Your task to perform on an android device: create a new album in the google photos Image 0: 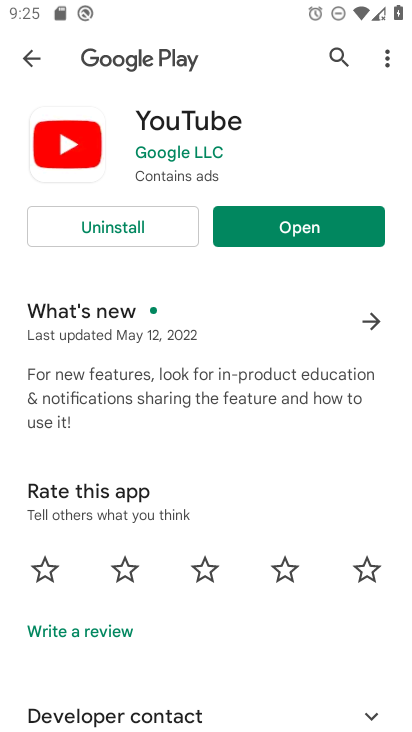
Step 0: press home button
Your task to perform on an android device: create a new album in the google photos Image 1: 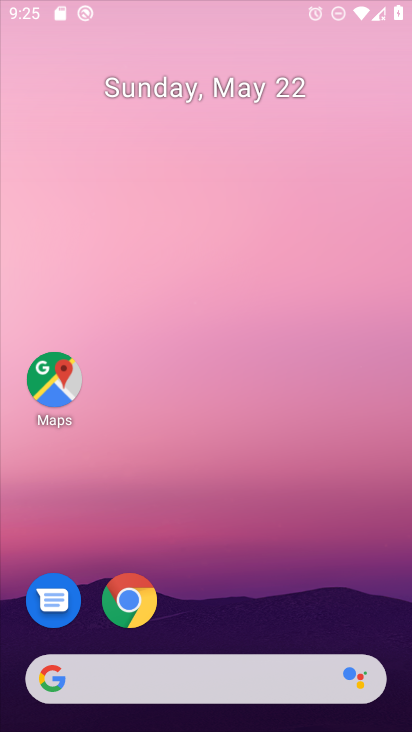
Step 1: drag from (277, 607) to (359, 199)
Your task to perform on an android device: create a new album in the google photos Image 2: 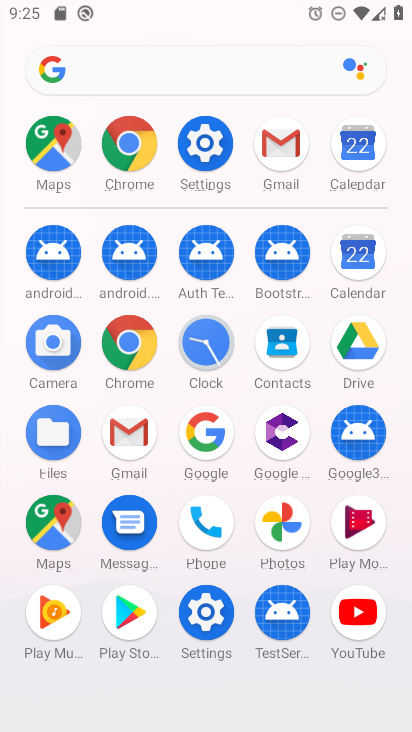
Step 2: click (293, 526)
Your task to perform on an android device: create a new album in the google photos Image 3: 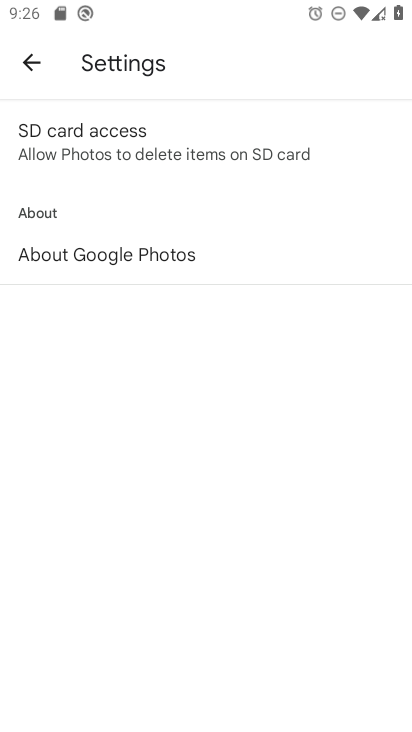
Step 3: click (36, 66)
Your task to perform on an android device: create a new album in the google photos Image 4: 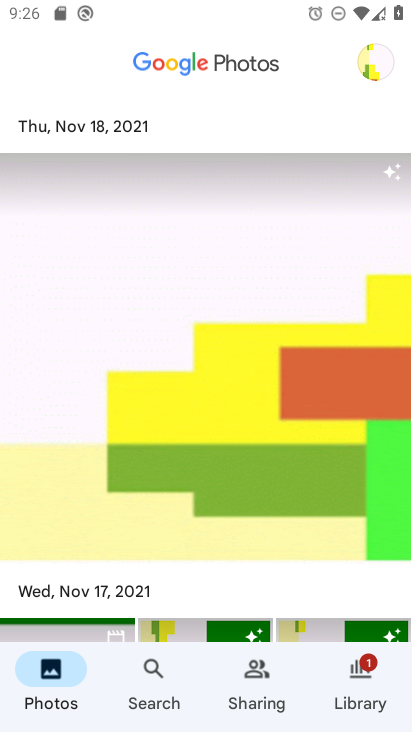
Step 4: click (360, 689)
Your task to perform on an android device: create a new album in the google photos Image 5: 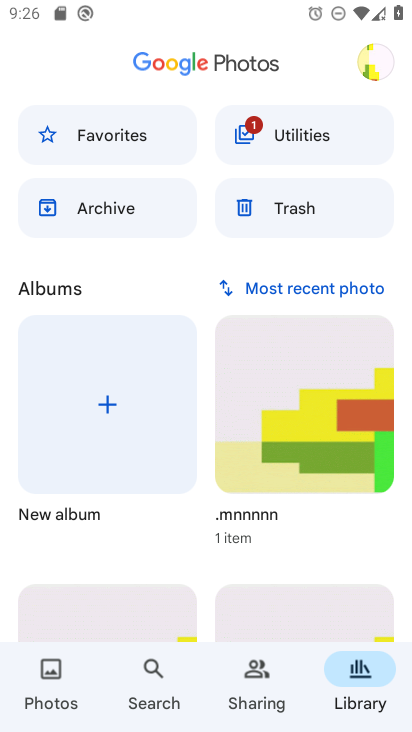
Step 5: click (355, 689)
Your task to perform on an android device: create a new album in the google photos Image 6: 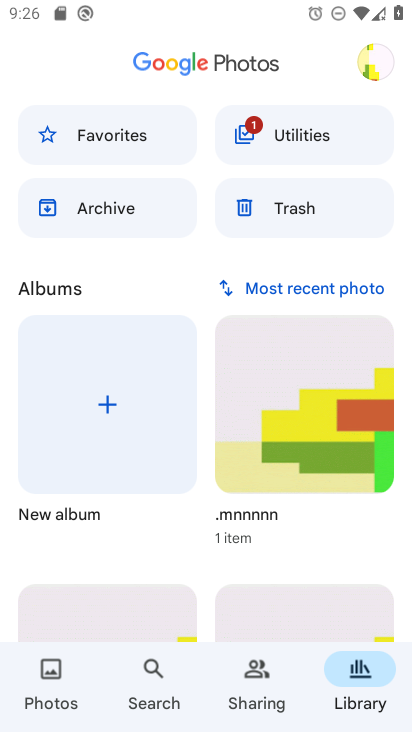
Step 6: click (108, 437)
Your task to perform on an android device: create a new album in the google photos Image 7: 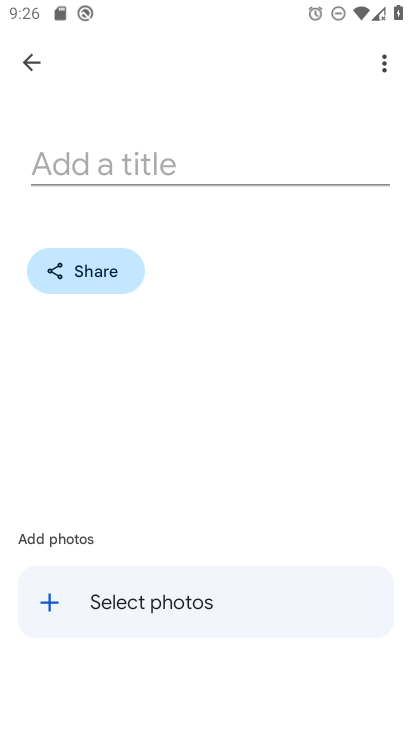
Step 7: click (166, 174)
Your task to perform on an android device: create a new album in the google photos Image 8: 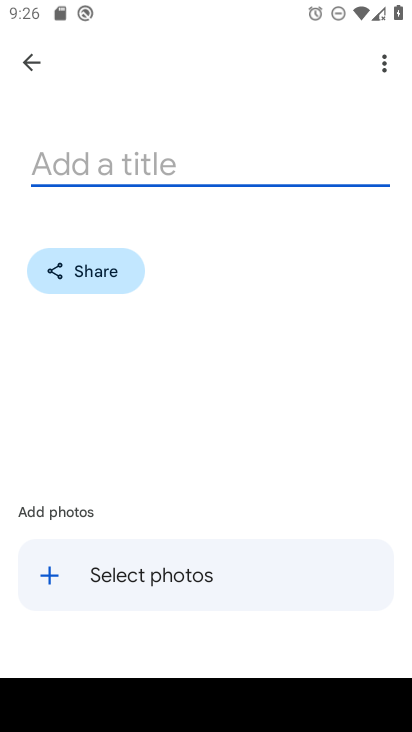
Step 8: type "gfjfh"
Your task to perform on an android device: create a new album in the google photos Image 9: 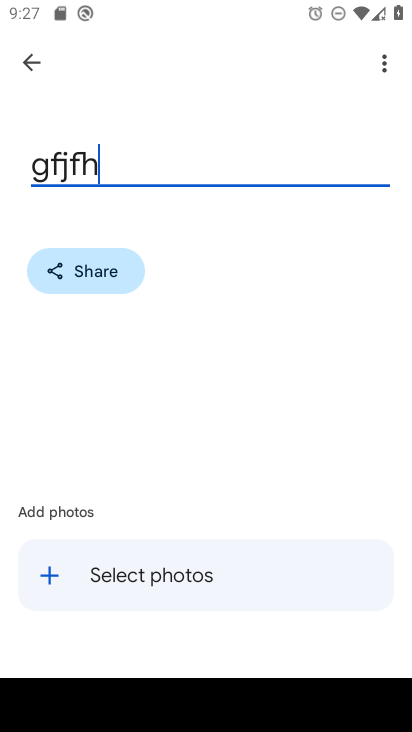
Step 9: click (56, 575)
Your task to perform on an android device: create a new album in the google photos Image 10: 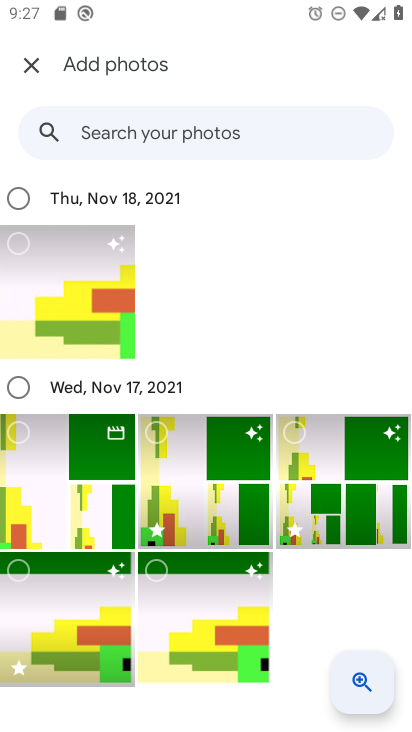
Step 10: click (104, 299)
Your task to perform on an android device: create a new album in the google photos Image 11: 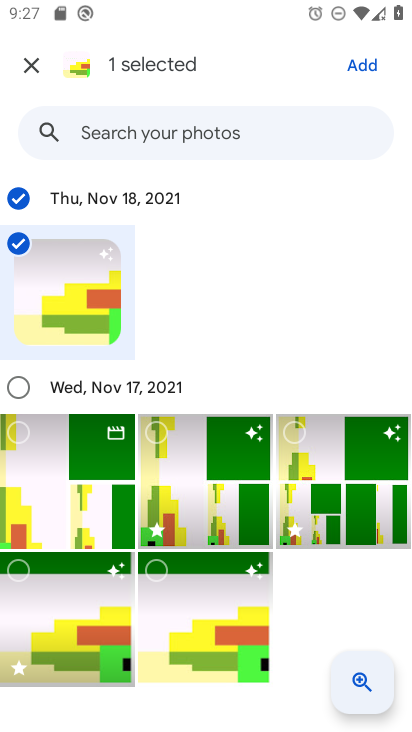
Step 11: click (66, 448)
Your task to perform on an android device: create a new album in the google photos Image 12: 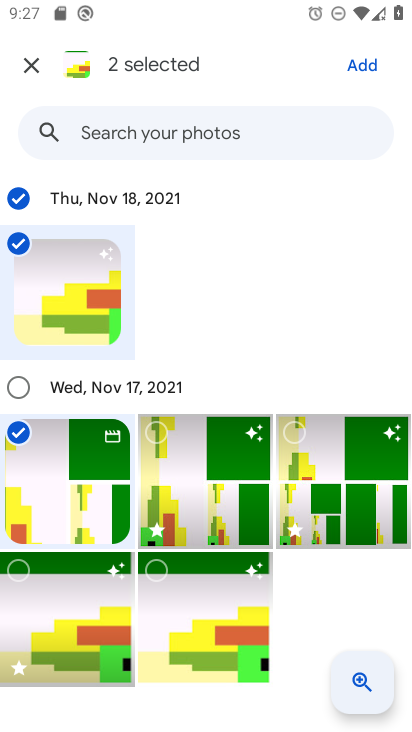
Step 12: click (174, 463)
Your task to perform on an android device: create a new album in the google photos Image 13: 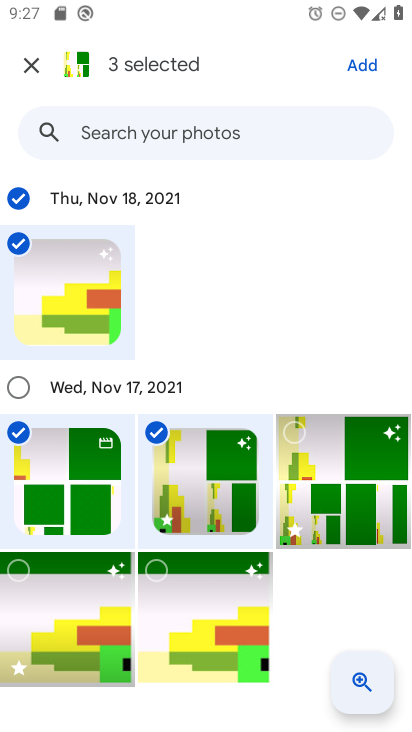
Step 13: click (364, 66)
Your task to perform on an android device: create a new album in the google photos Image 14: 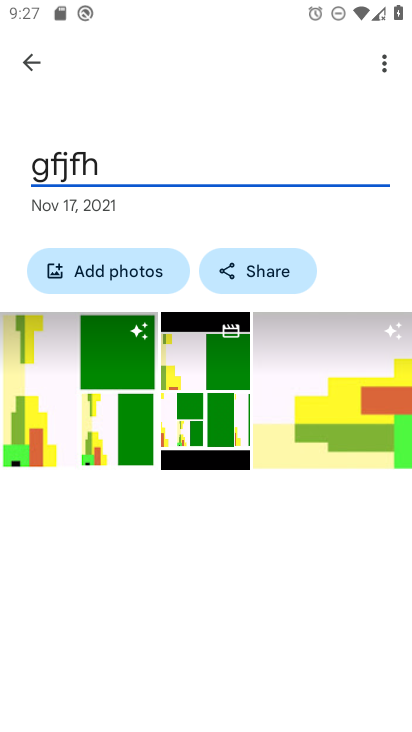
Step 14: task complete